Your task to perform on an android device: turn on notifications settings in the gmail app Image 0: 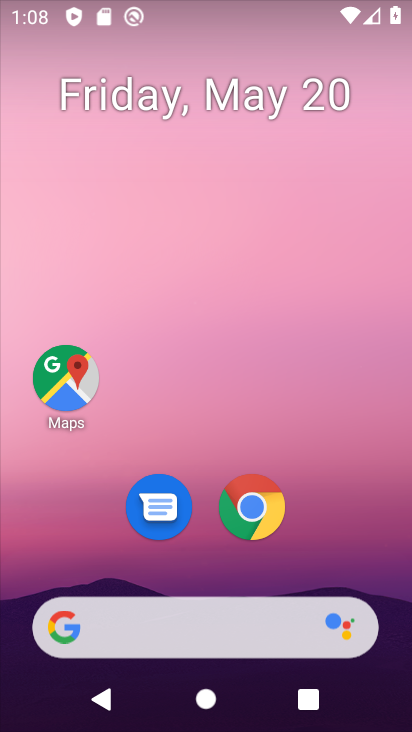
Step 0: drag from (357, 563) to (327, 142)
Your task to perform on an android device: turn on notifications settings in the gmail app Image 1: 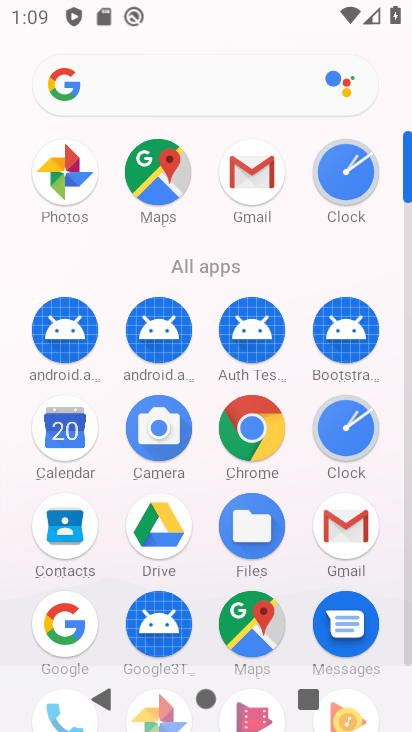
Step 1: click (258, 170)
Your task to perform on an android device: turn on notifications settings in the gmail app Image 2: 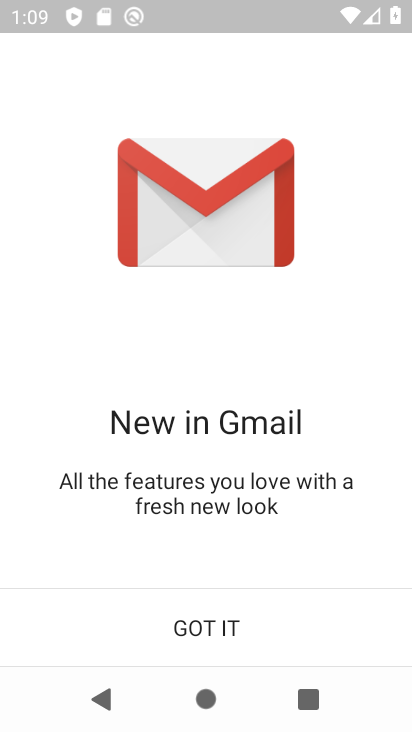
Step 2: click (219, 626)
Your task to perform on an android device: turn on notifications settings in the gmail app Image 3: 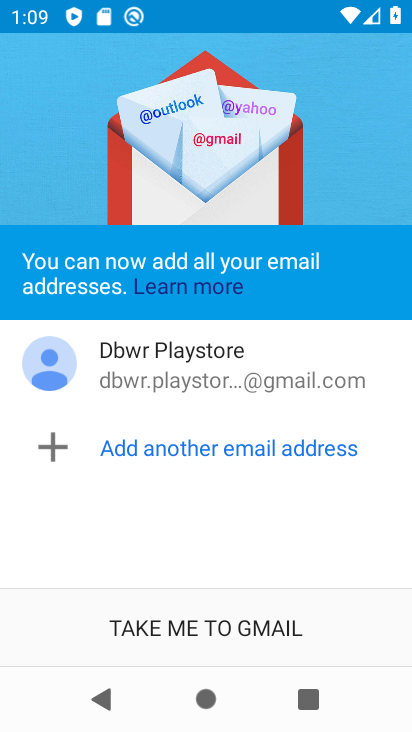
Step 3: click (219, 626)
Your task to perform on an android device: turn on notifications settings in the gmail app Image 4: 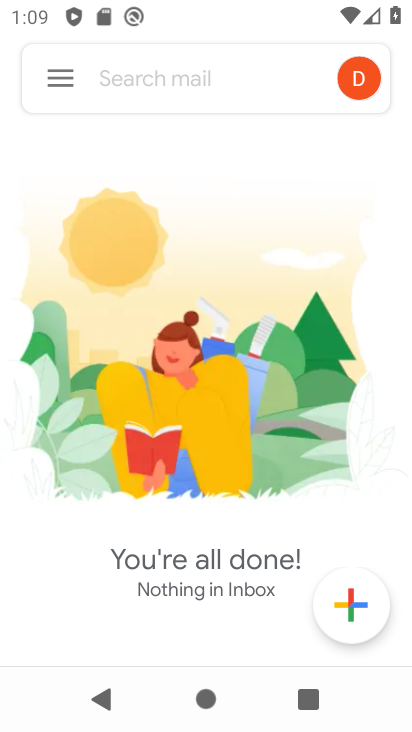
Step 4: click (59, 95)
Your task to perform on an android device: turn on notifications settings in the gmail app Image 5: 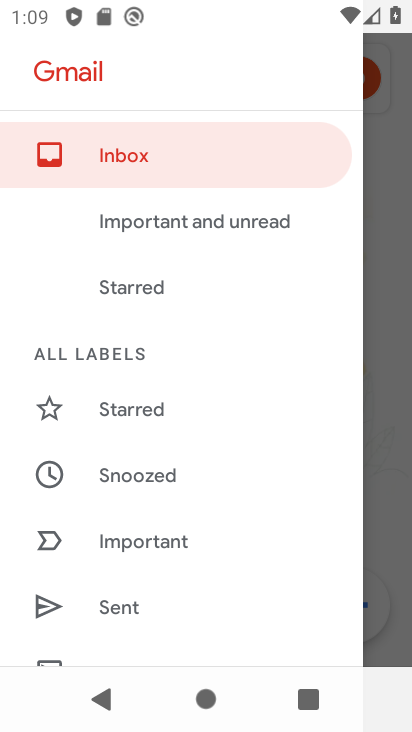
Step 5: drag from (239, 632) to (219, 53)
Your task to perform on an android device: turn on notifications settings in the gmail app Image 6: 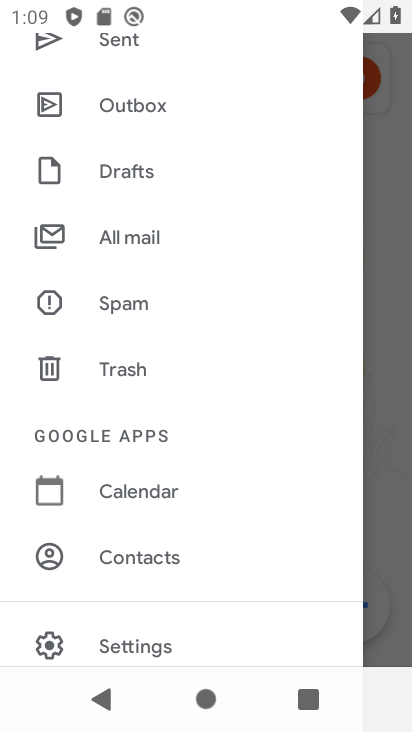
Step 6: click (208, 641)
Your task to perform on an android device: turn on notifications settings in the gmail app Image 7: 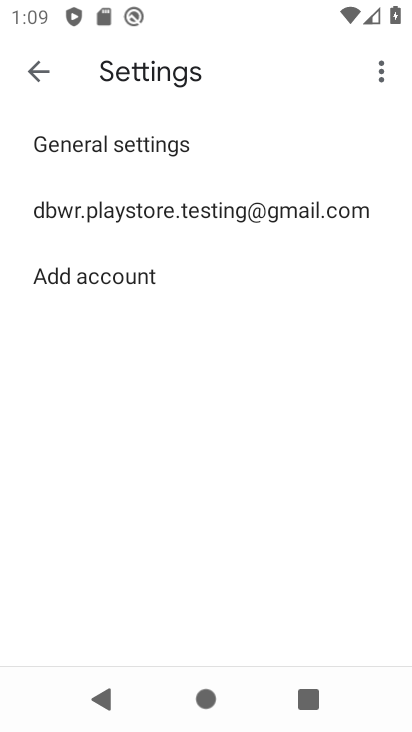
Step 7: click (284, 233)
Your task to perform on an android device: turn on notifications settings in the gmail app Image 8: 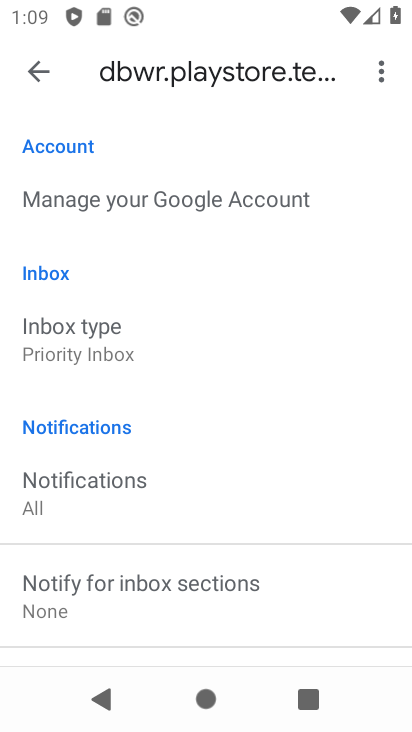
Step 8: drag from (298, 604) to (283, 198)
Your task to perform on an android device: turn on notifications settings in the gmail app Image 9: 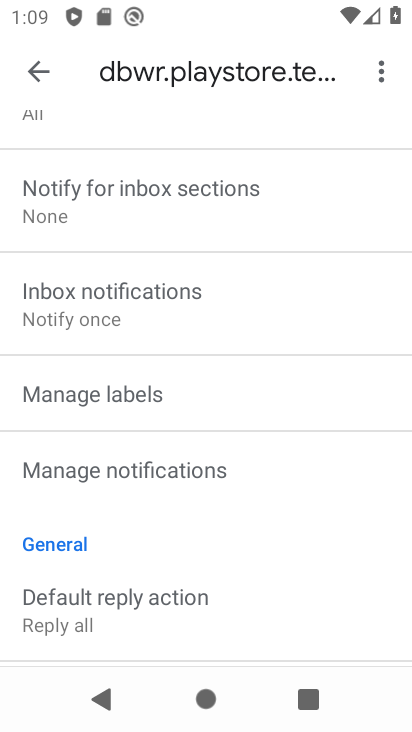
Step 9: click (243, 471)
Your task to perform on an android device: turn on notifications settings in the gmail app Image 10: 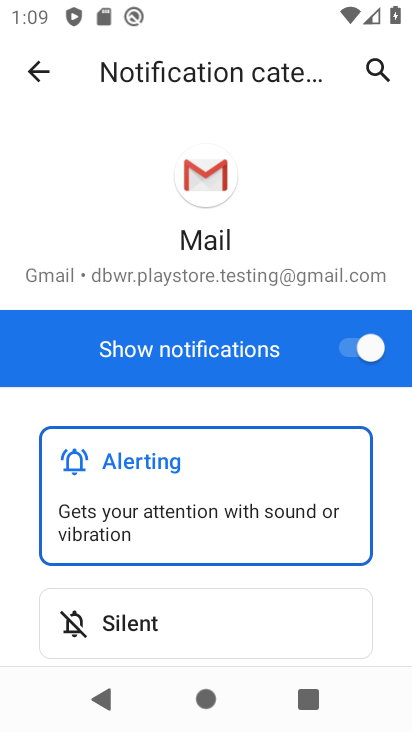
Step 10: drag from (318, 603) to (263, 178)
Your task to perform on an android device: turn on notifications settings in the gmail app Image 11: 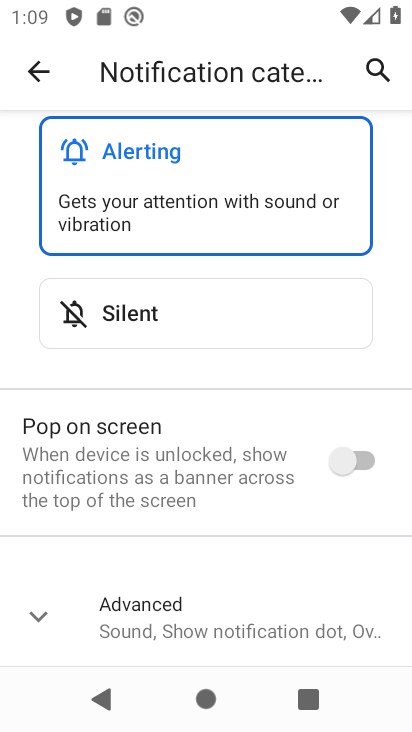
Step 11: click (361, 478)
Your task to perform on an android device: turn on notifications settings in the gmail app Image 12: 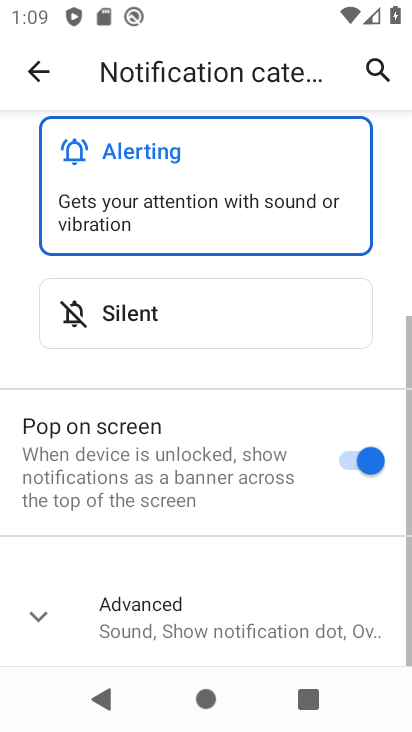
Step 12: task complete